Your task to perform on an android device: Add panasonic triple a to the cart on target, then select checkout. Image 0: 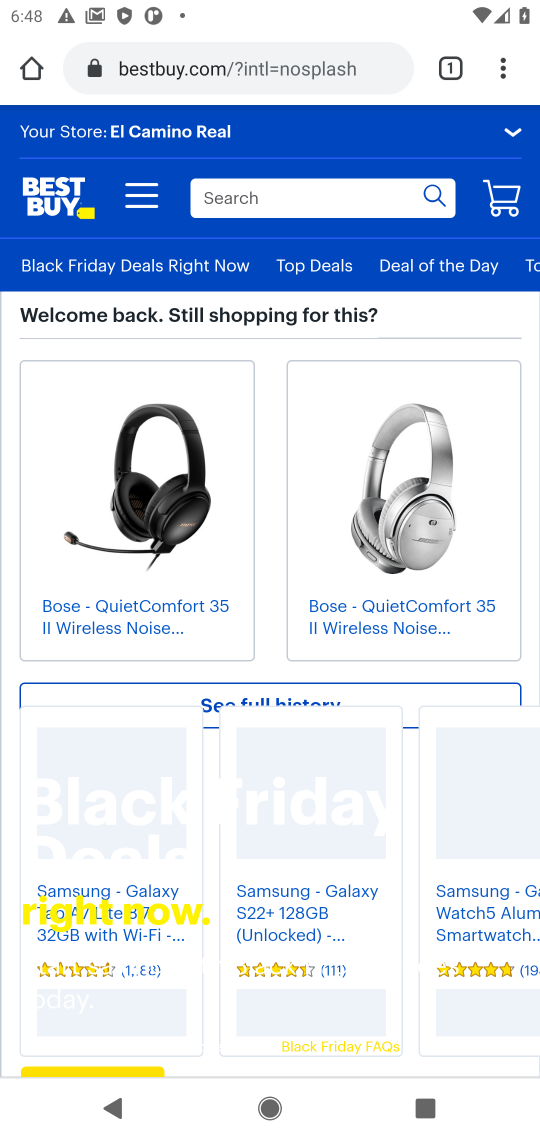
Step 0: press home button
Your task to perform on an android device: Add panasonic triple a to the cart on target, then select checkout. Image 1: 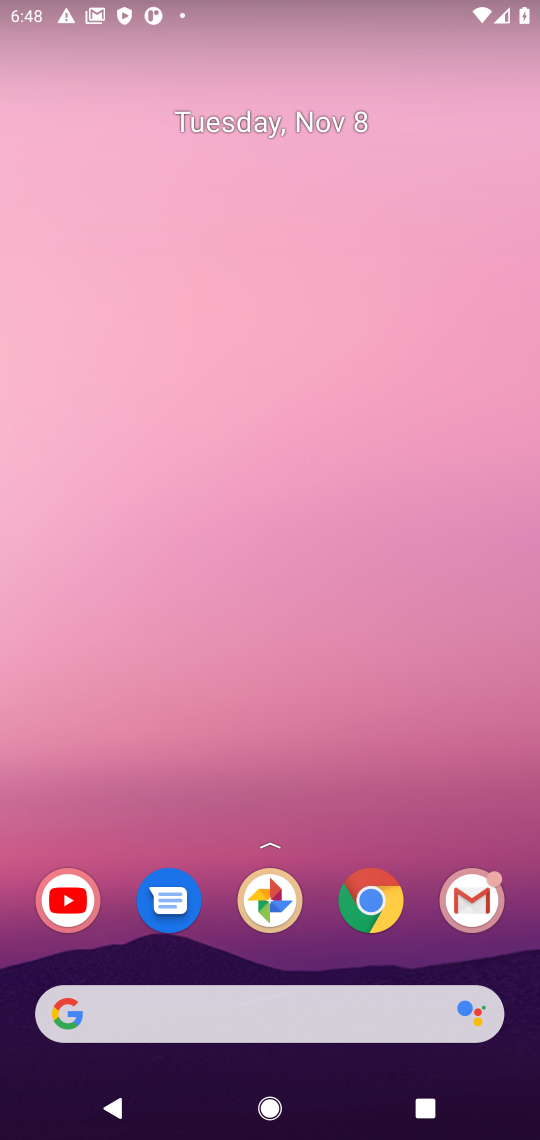
Step 1: click (381, 909)
Your task to perform on an android device: Add panasonic triple a to the cart on target, then select checkout. Image 2: 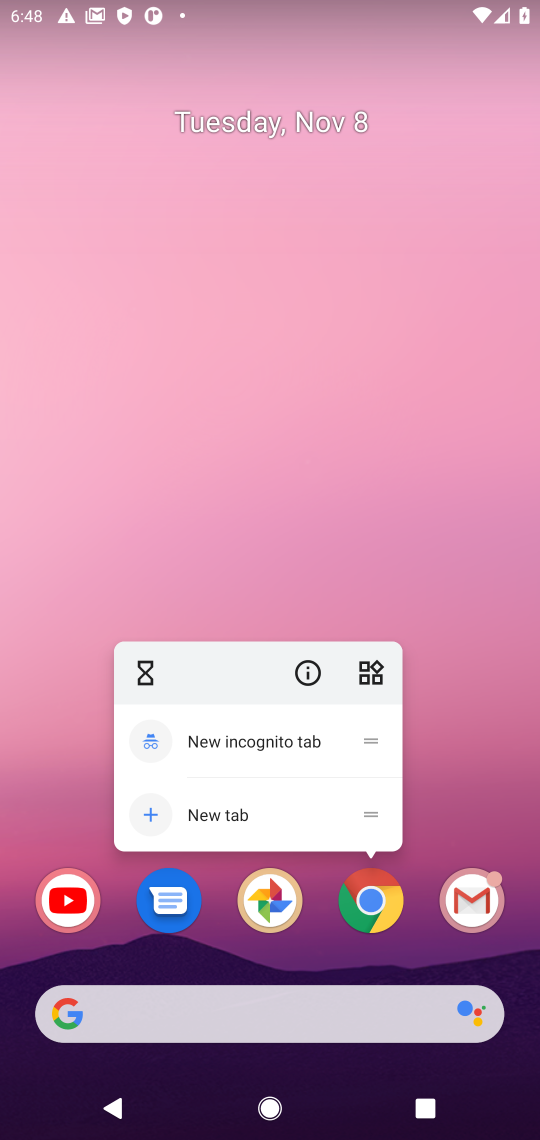
Step 2: click (378, 906)
Your task to perform on an android device: Add panasonic triple a to the cart on target, then select checkout. Image 3: 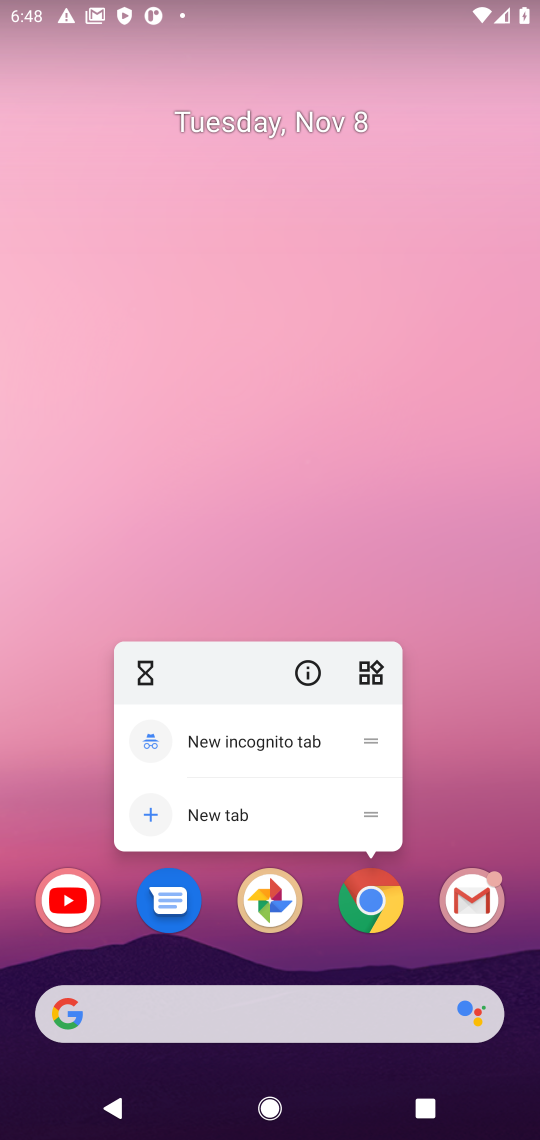
Step 3: click (363, 908)
Your task to perform on an android device: Add panasonic triple a to the cart on target, then select checkout. Image 4: 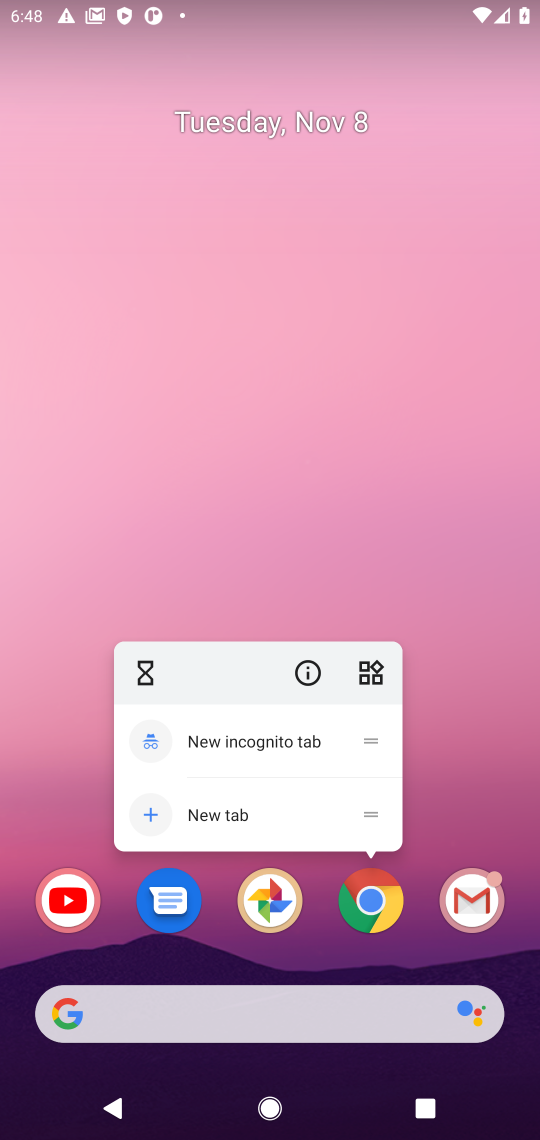
Step 4: click (371, 910)
Your task to perform on an android device: Add panasonic triple a to the cart on target, then select checkout. Image 5: 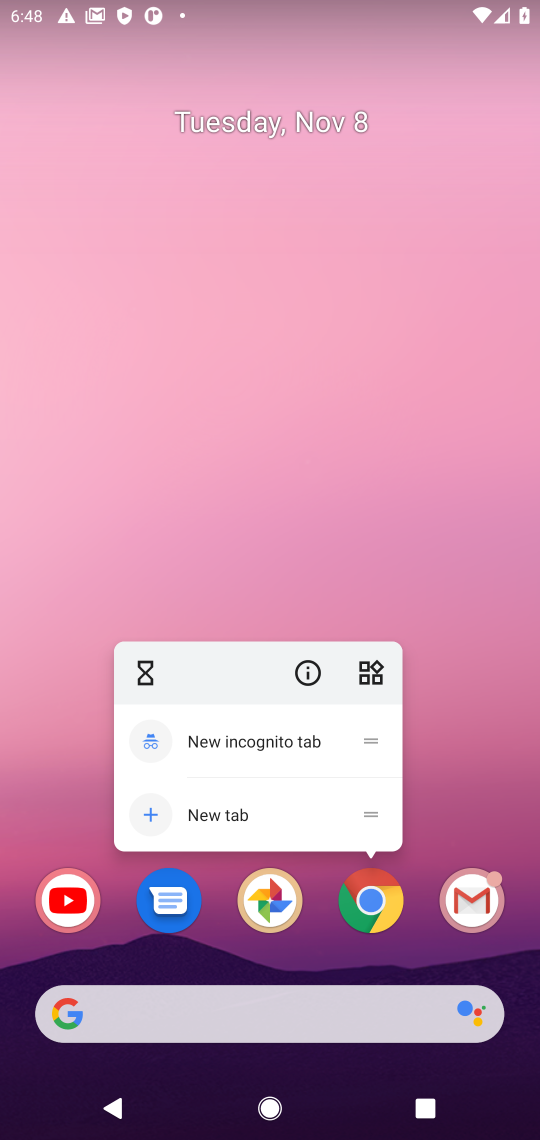
Step 5: click (382, 907)
Your task to perform on an android device: Add panasonic triple a to the cart on target, then select checkout. Image 6: 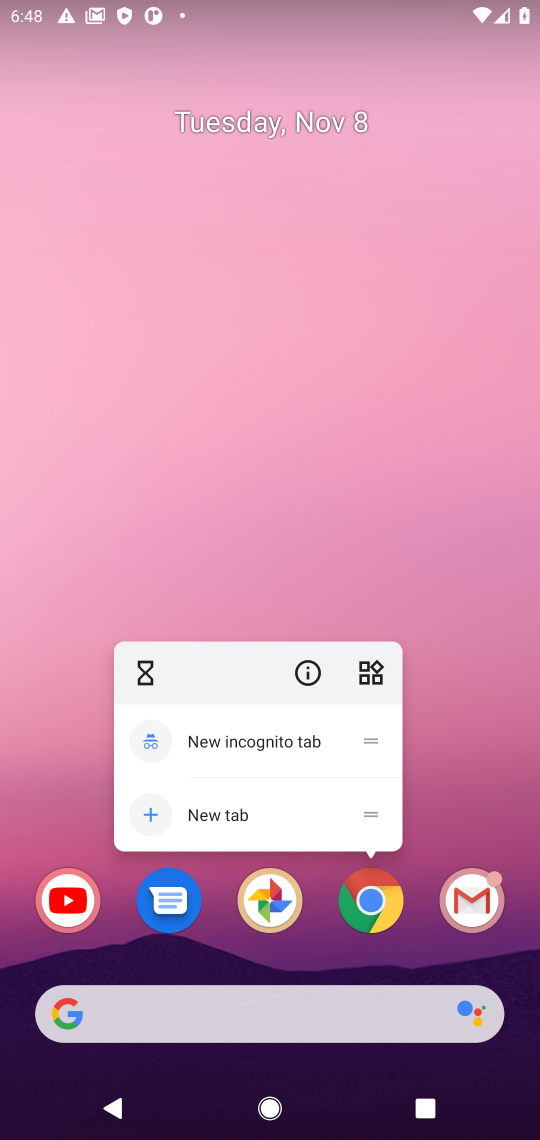
Step 6: click (365, 908)
Your task to perform on an android device: Add panasonic triple a to the cart on target, then select checkout. Image 7: 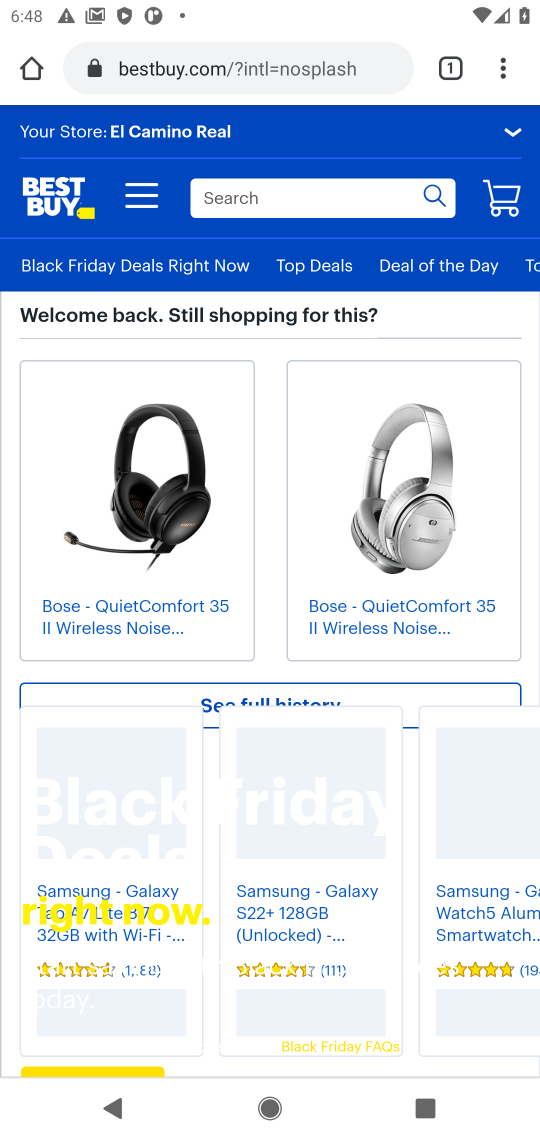
Step 7: click (173, 72)
Your task to perform on an android device: Add panasonic triple a to the cart on target, then select checkout. Image 8: 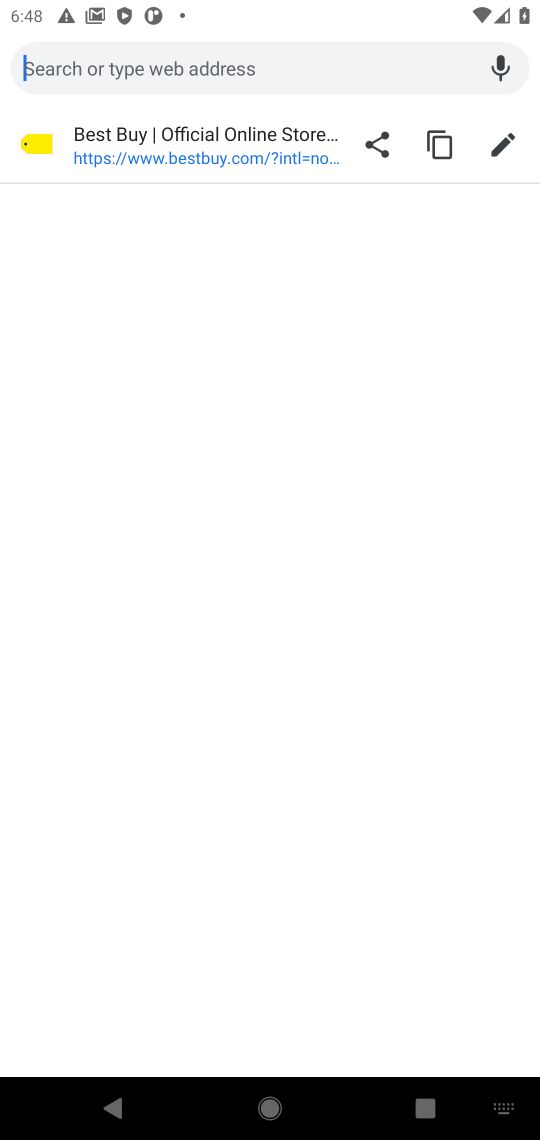
Step 8: type "target"
Your task to perform on an android device: Add panasonic triple a to the cart on target, then select checkout. Image 9: 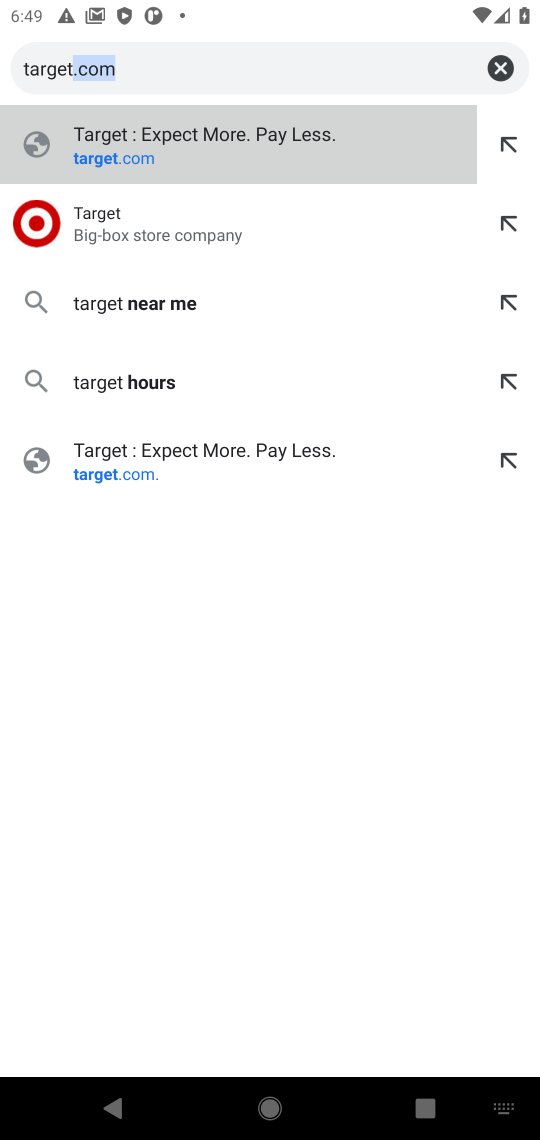
Step 9: click (92, 222)
Your task to perform on an android device: Add panasonic triple a to the cart on target, then select checkout. Image 10: 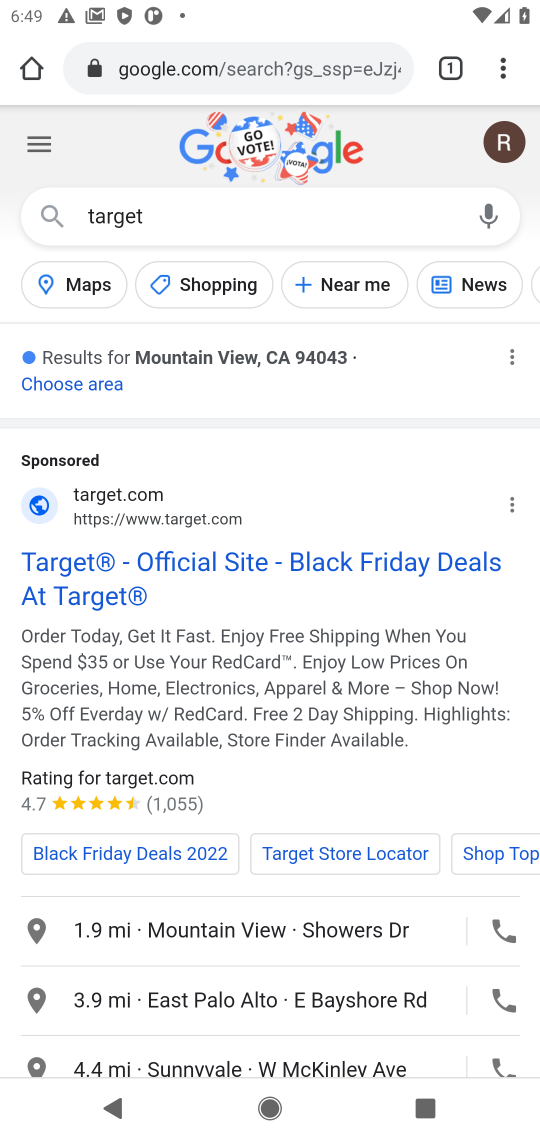
Step 10: drag from (108, 725) to (180, 75)
Your task to perform on an android device: Add panasonic triple a to the cart on target, then select checkout. Image 11: 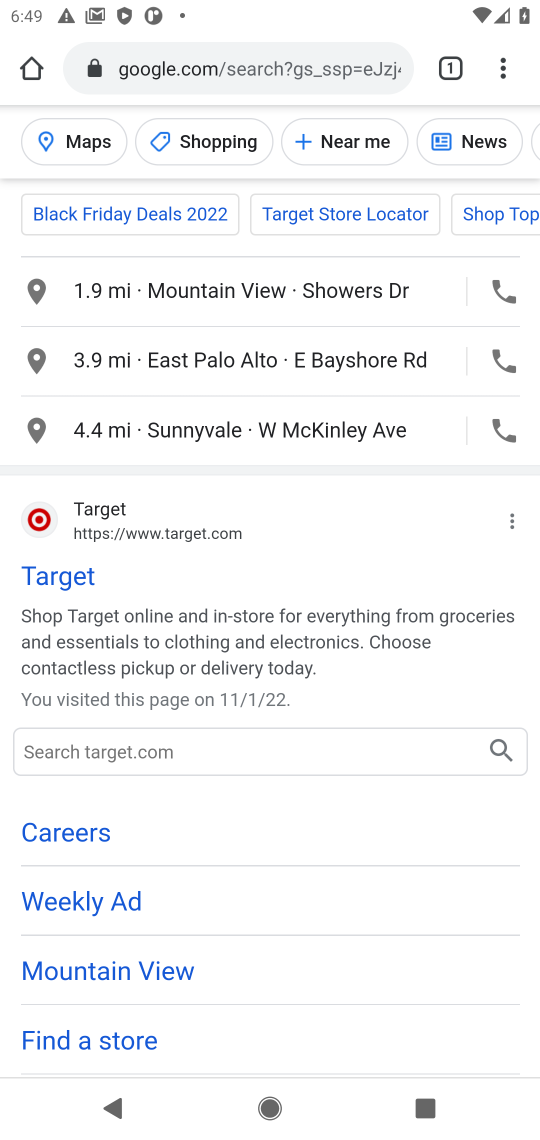
Step 11: click (80, 579)
Your task to perform on an android device: Add panasonic triple a to the cart on target, then select checkout. Image 12: 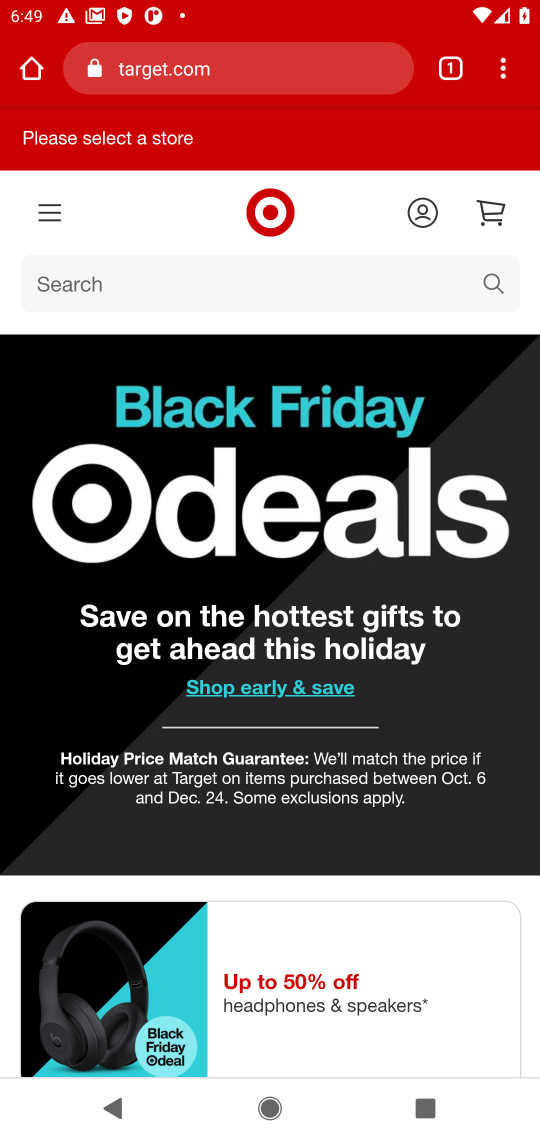
Step 12: click (189, 278)
Your task to perform on an android device: Add panasonic triple a to the cart on target, then select checkout. Image 13: 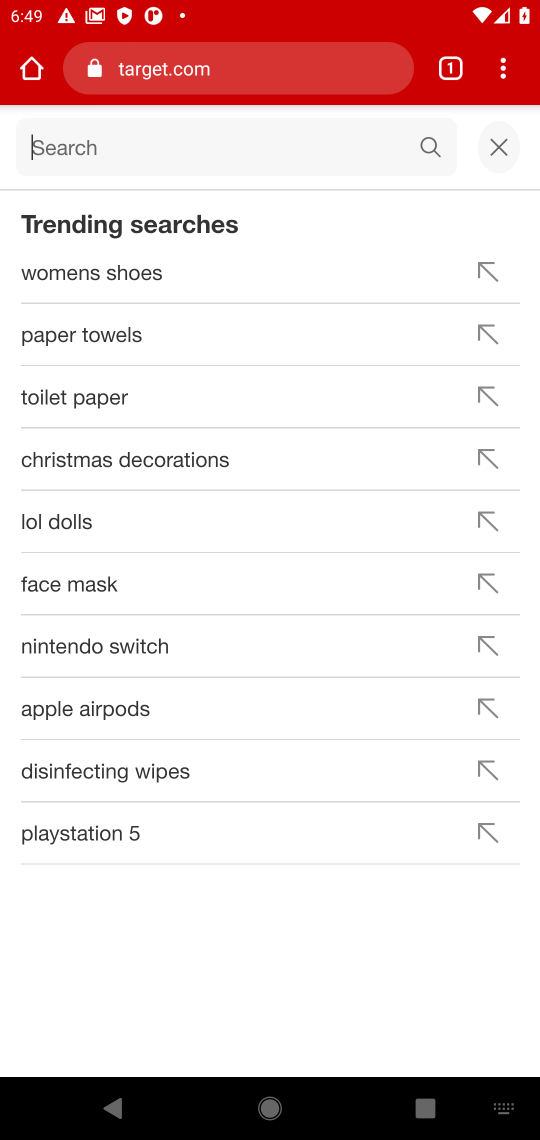
Step 13: type "panasonic triple"
Your task to perform on an android device: Add panasonic triple a to the cart on target, then select checkout. Image 14: 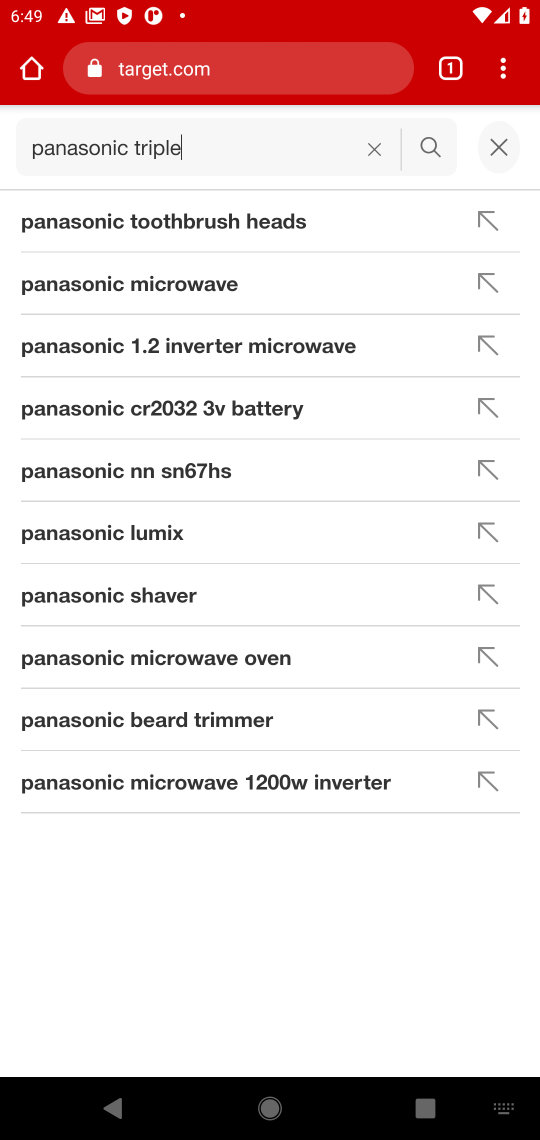
Step 14: click (84, 525)
Your task to perform on an android device: Add panasonic triple a to the cart on target, then select checkout. Image 15: 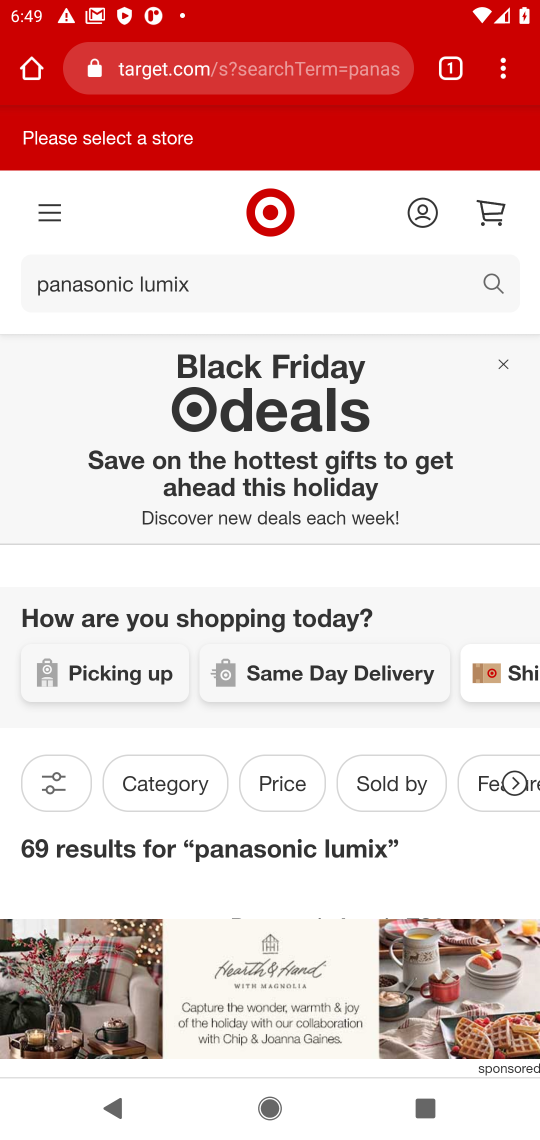
Step 15: drag from (130, 936) to (190, 168)
Your task to perform on an android device: Add panasonic triple a to the cart on target, then select checkout. Image 16: 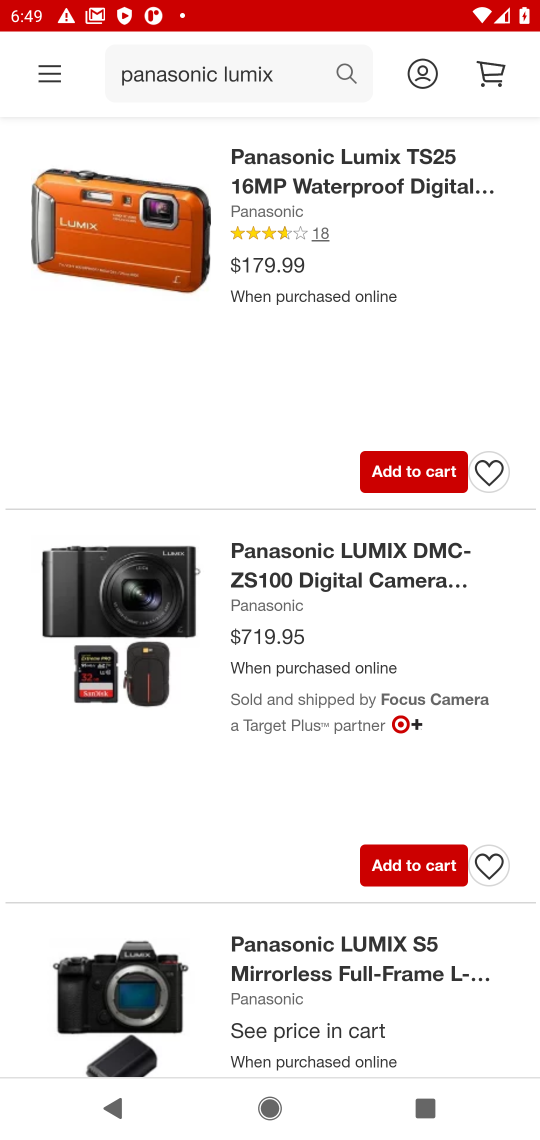
Step 16: click (134, 635)
Your task to perform on an android device: Add panasonic triple a to the cart on target, then select checkout. Image 17: 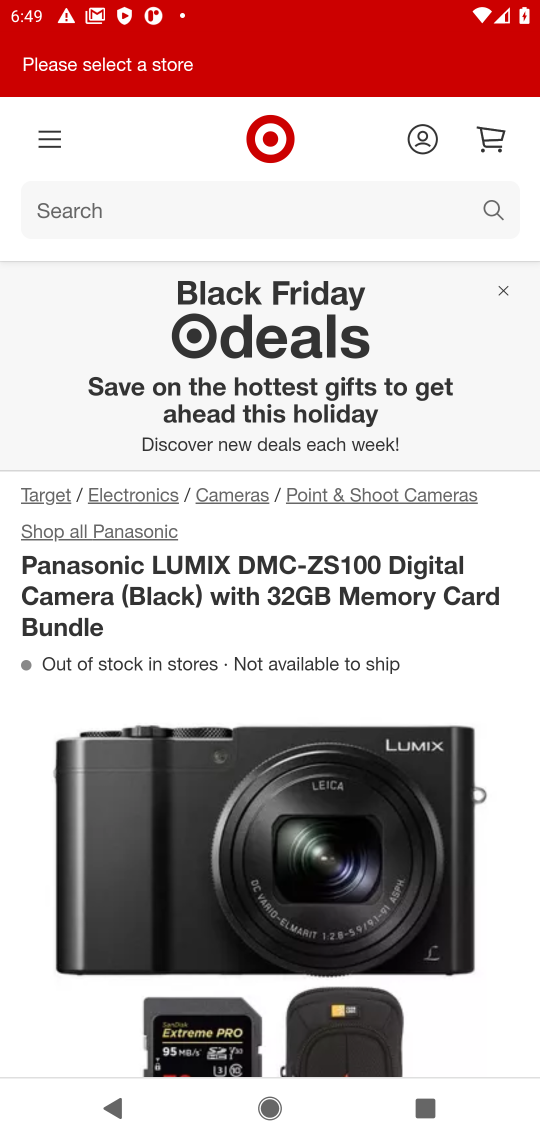
Step 17: drag from (271, 828) to (325, 222)
Your task to perform on an android device: Add panasonic triple a to the cart on target, then select checkout. Image 18: 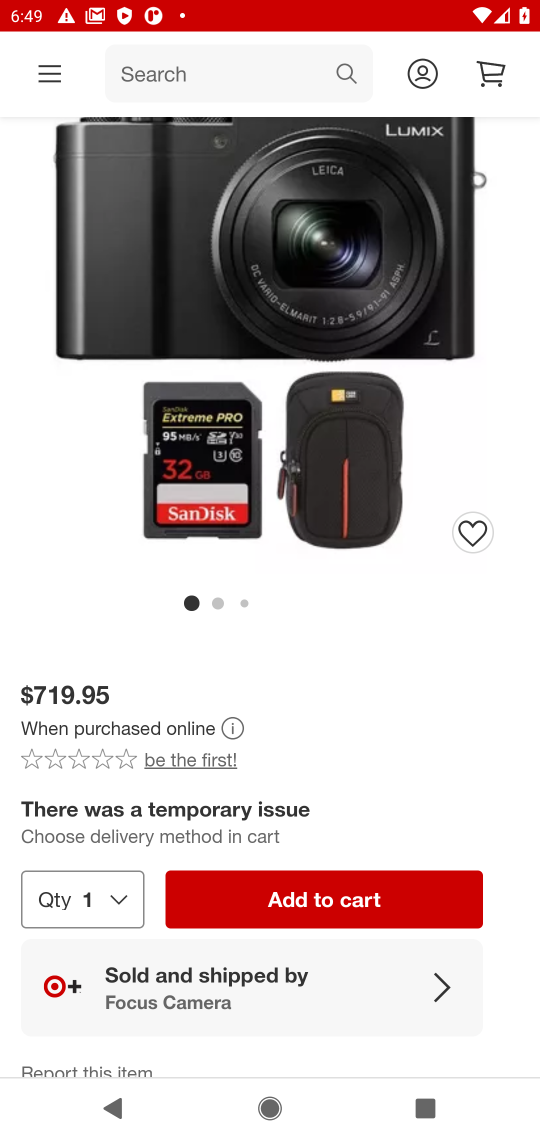
Step 18: drag from (496, 791) to (534, 532)
Your task to perform on an android device: Add panasonic triple a to the cart on target, then select checkout. Image 19: 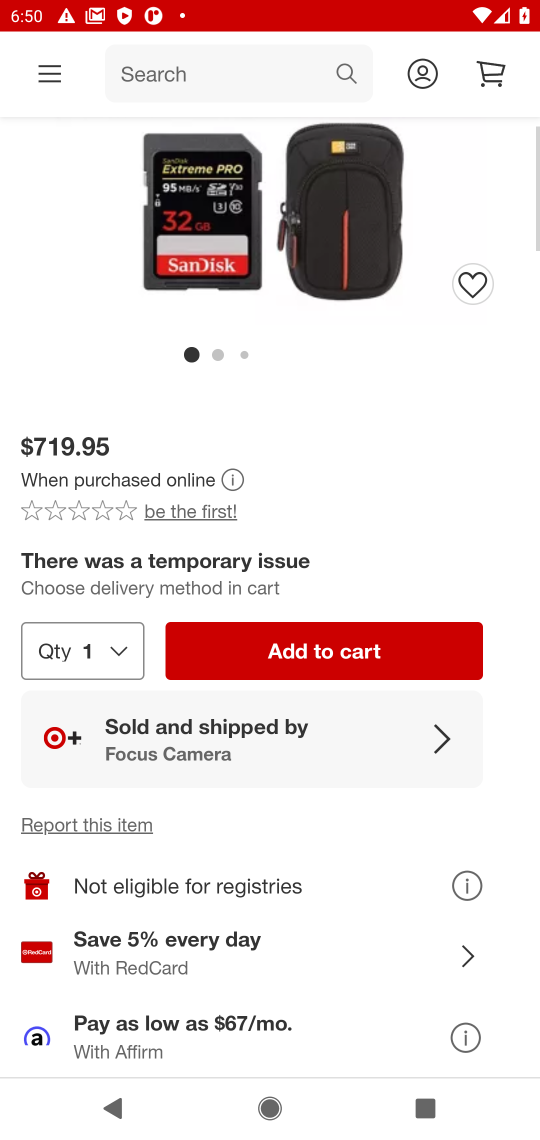
Step 19: click (298, 706)
Your task to perform on an android device: Add panasonic triple a to the cart on target, then select checkout. Image 20: 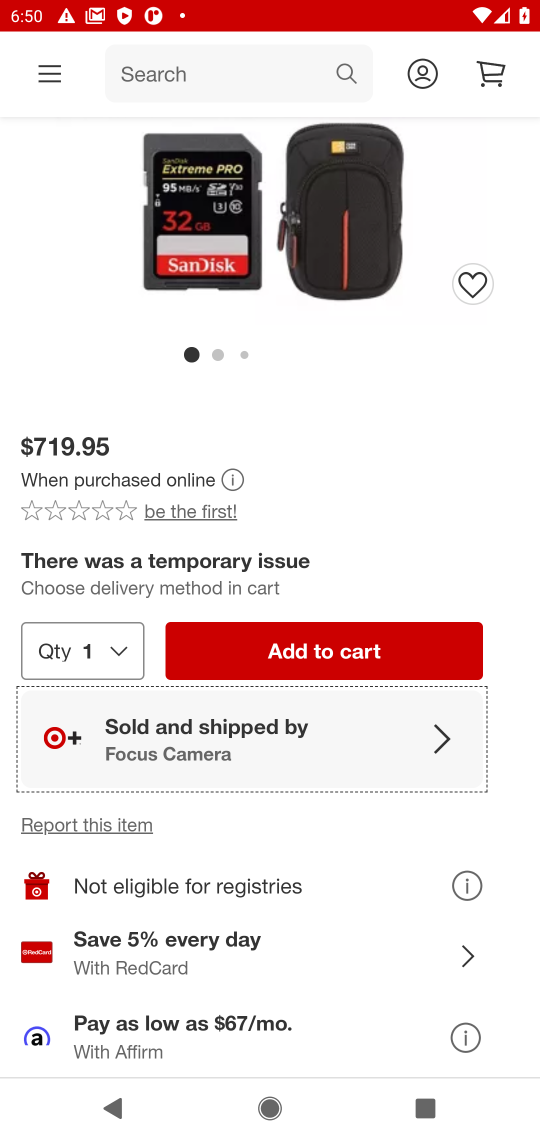
Step 20: click (298, 663)
Your task to perform on an android device: Add panasonic triple a to the cart on target, then select checkout. Image 21: 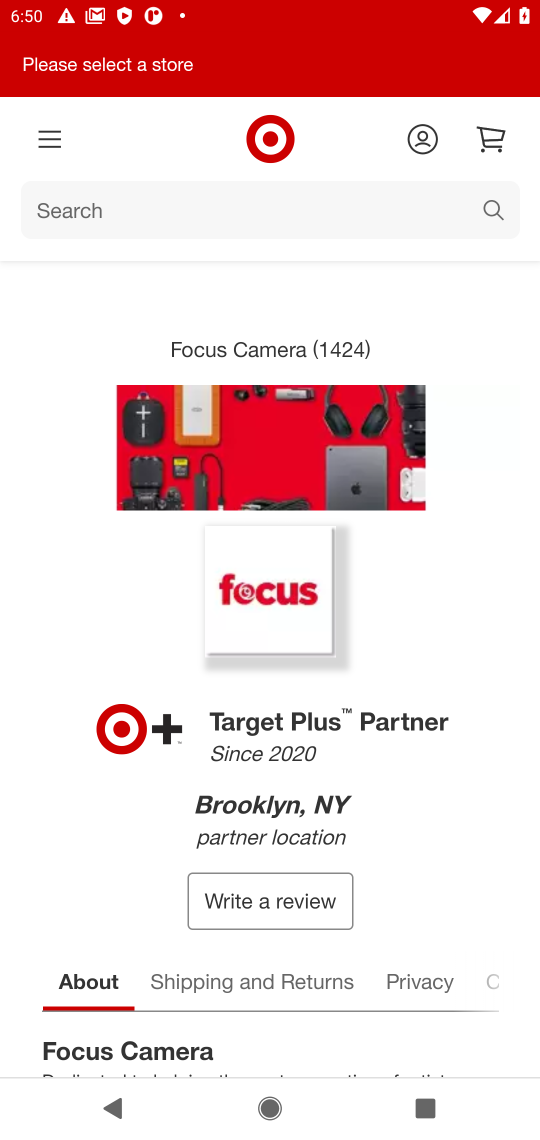
Step 21: drag from (376, 895) to (399, 477)
Your task to perform on an android device: Add panasonic triple a to the cart on target, then select checkout. Image 22: 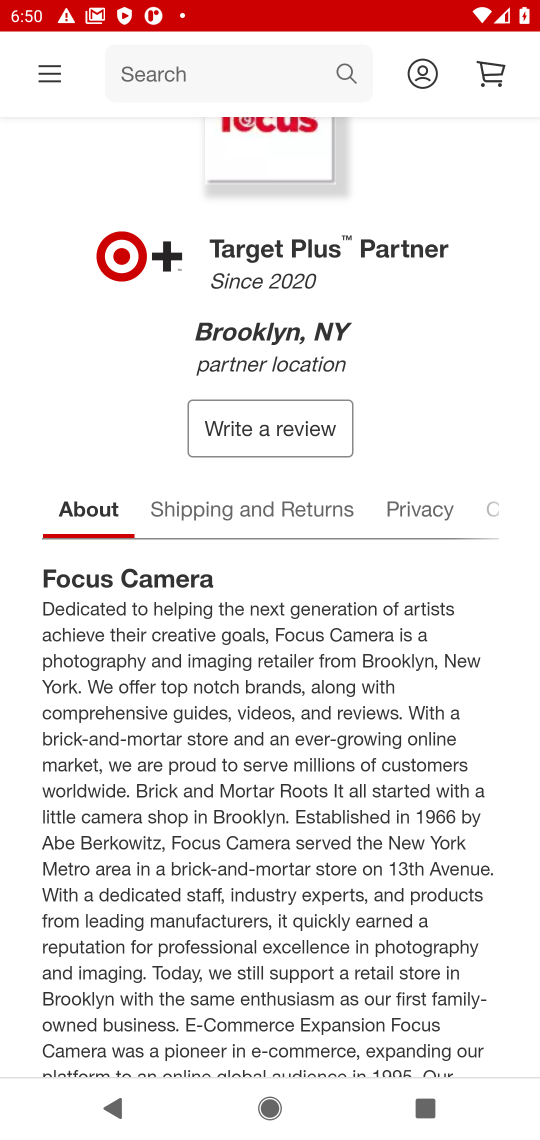
Step 22: drag from (319, 869) to (331, 189)
Your task to perform on an android device: Add panasonic triple a to the cart on target, then select checkout. Image 23: 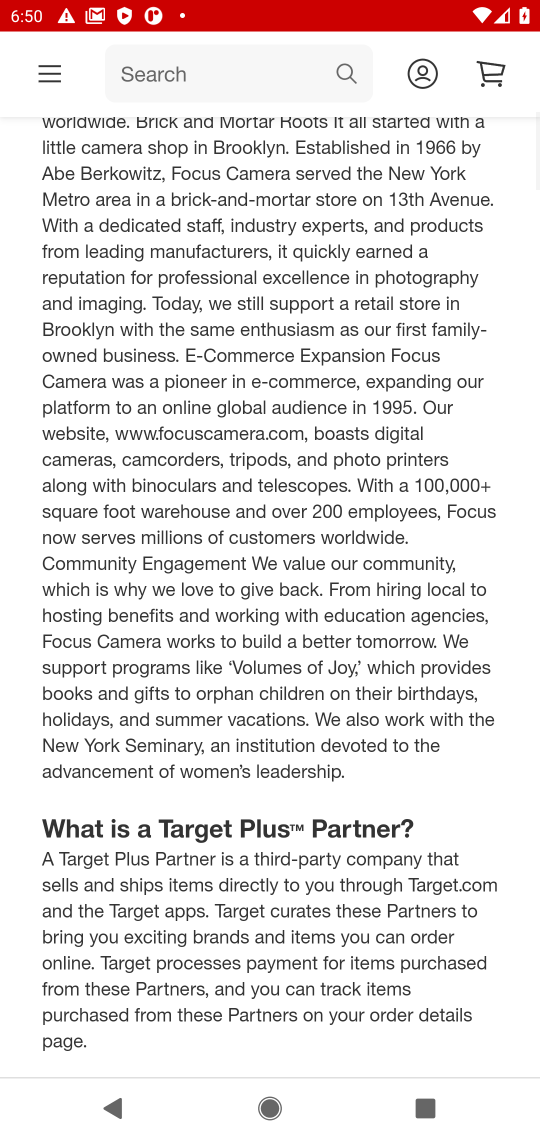
Step 23: drag from (243, 857) to (252, 299)
Your task to perform on an android device: Add panasonic triple a to the cart on target, then select checkout. Image 24: 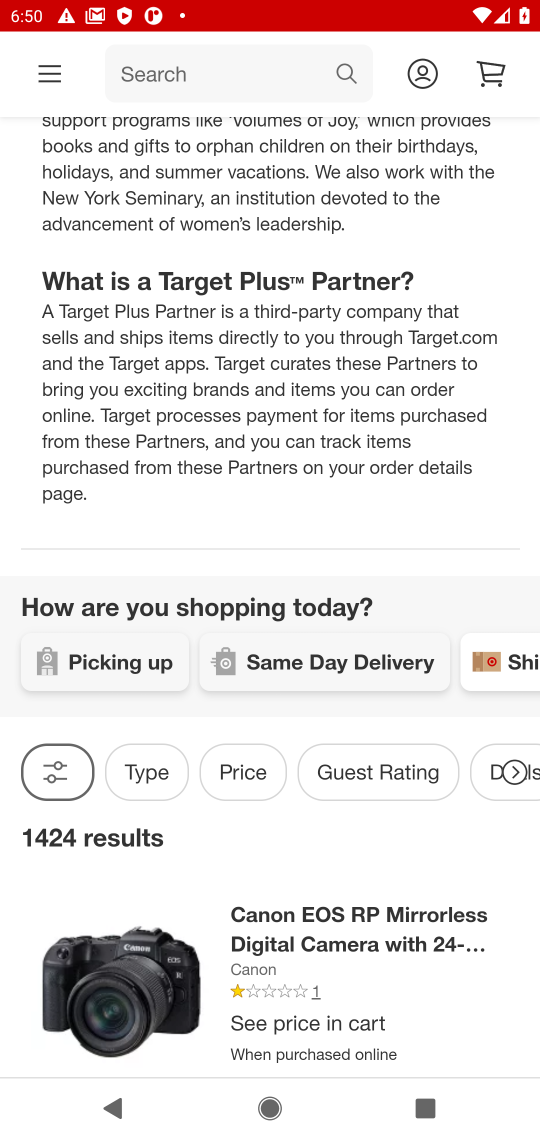
Step 24: drag from (176, 935) to (427, 436)
Your task to perform on an android device: Add panasonic triple a to the cart on target, then select checkout. Image 25: 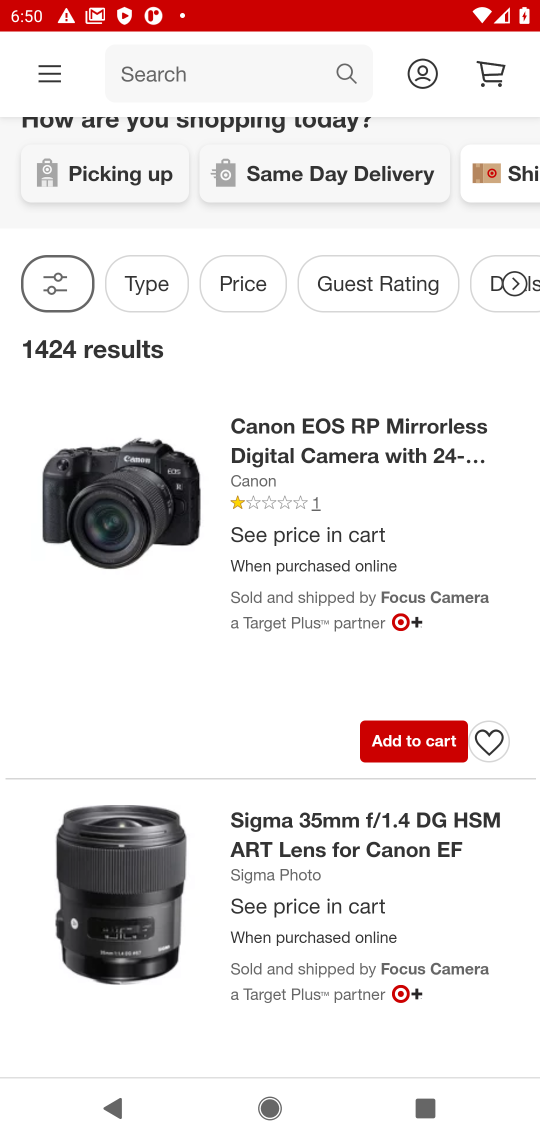
Step 25: press back button
Your task to perform on an android device: Add panasonic triple a to the cart on target, then select checkout. Image 26: 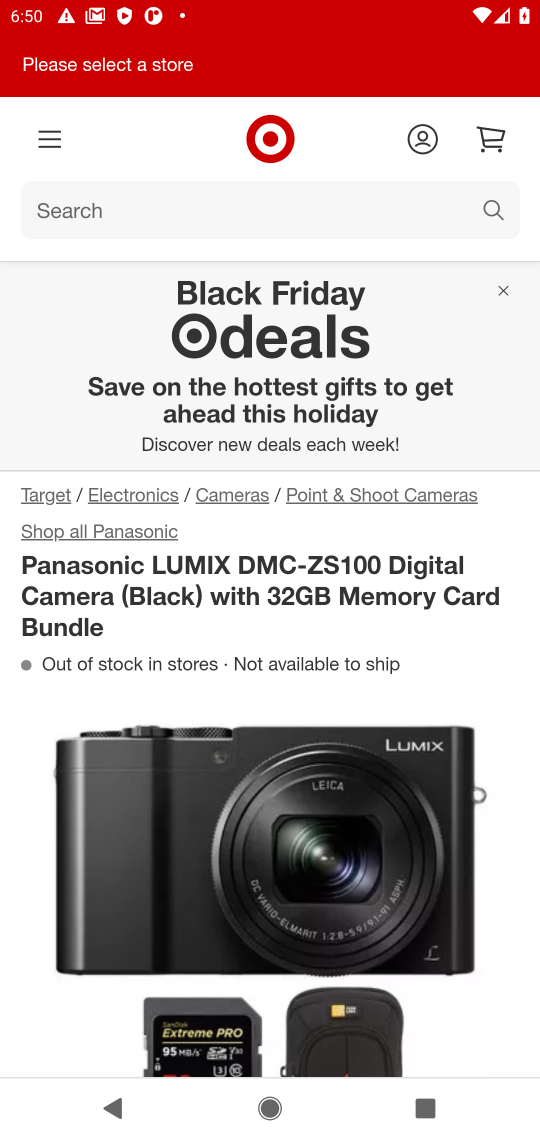
Step 26: click (503, 211)
Your task to perform on an android device: Add panasonic triple a to the cart on target, then select checkout. Image 27: 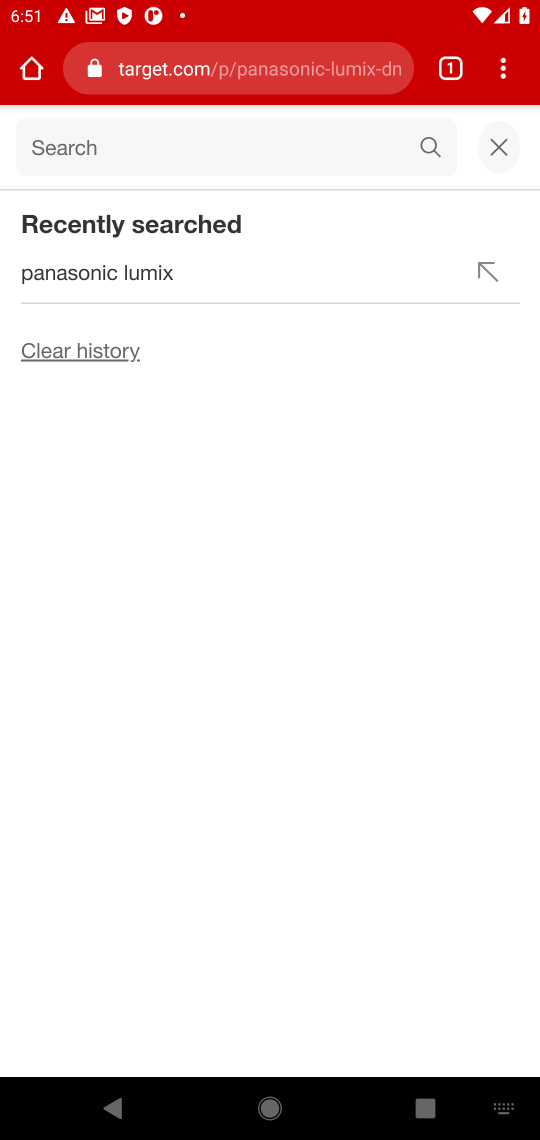
Step 27: type "panasonic triple"
Your task to perform on an android device: Add panasonic triple a to the cart on target, then select checkout. Image 28: 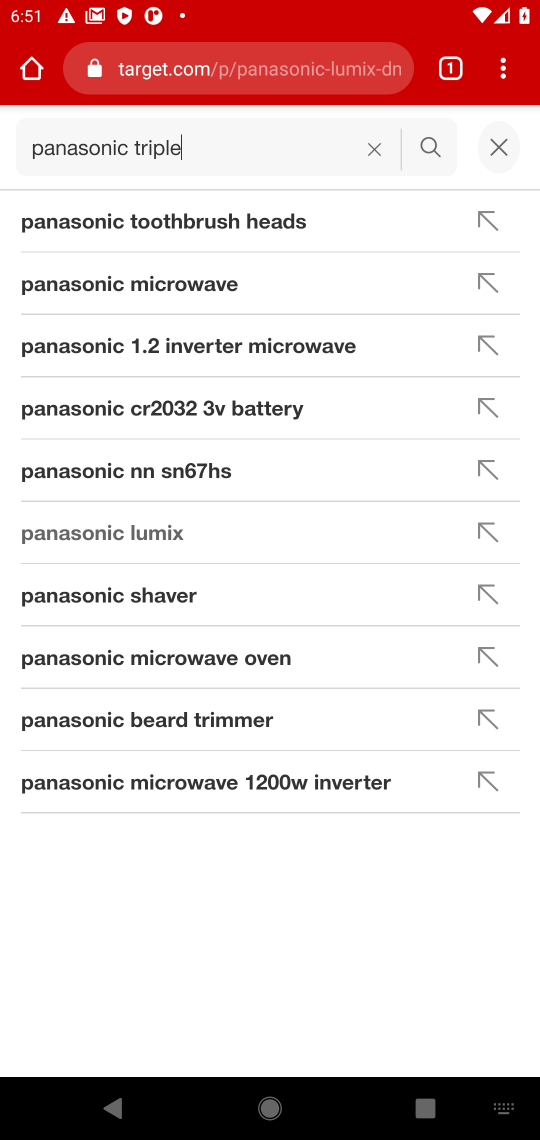
Step 28: click (143, 406)
Your task to perform on an android device: Add panasonic triple a to the cart on target, then select checkout. Image 29: 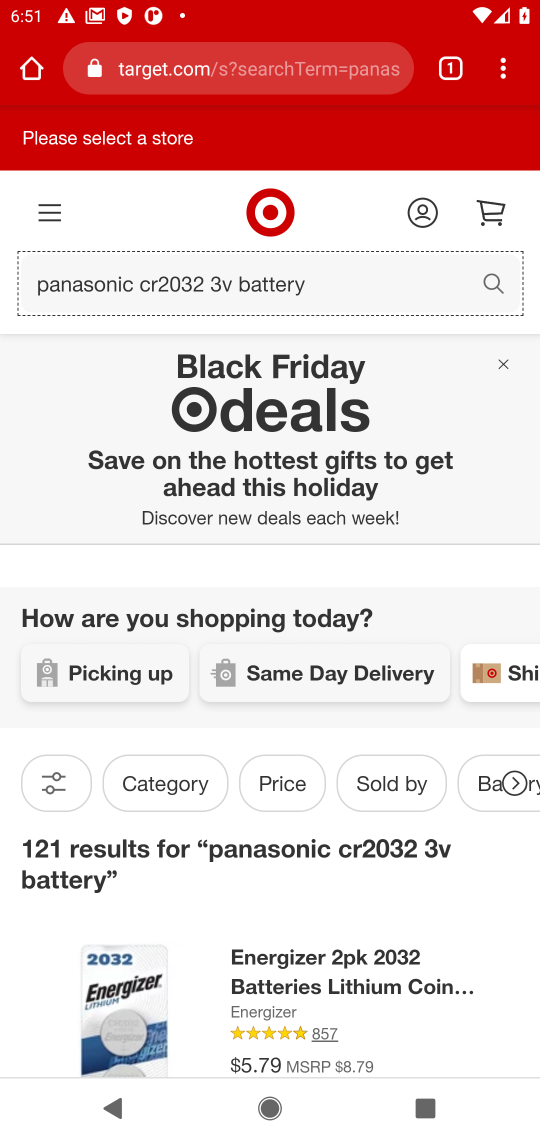
Step 29: drag from (289, 1000) to (320, 97)
Your task to perform on an android device: Add panasonic triple a to the cart on target, then select checkout. Image 30: 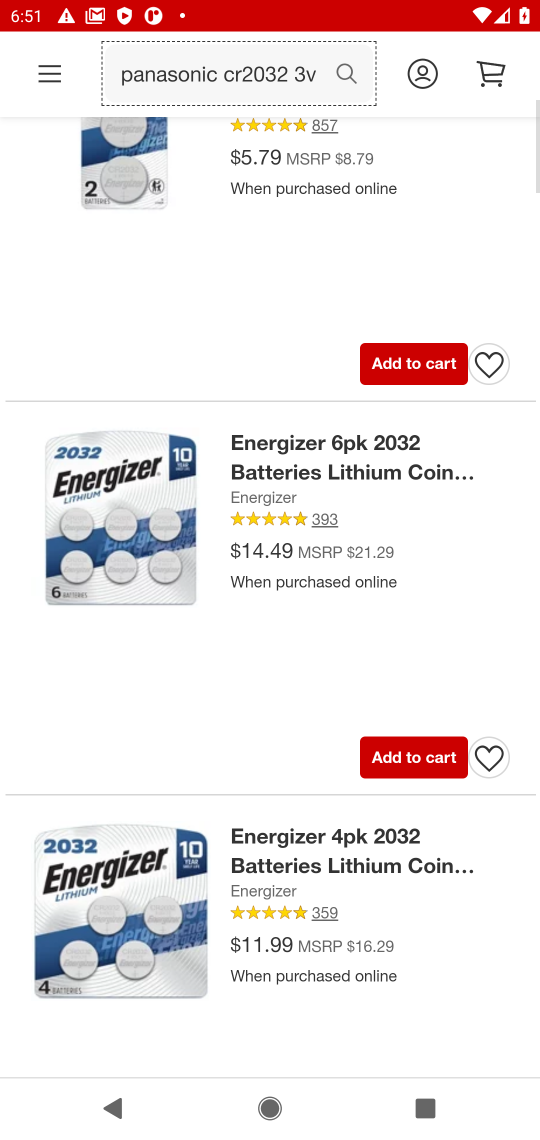
Step 30: drag from (313, 1041) to (218, 274)
Your task to perform on an android device: Add panasonic triple a to the cart on target, then select checkout. Image 31: 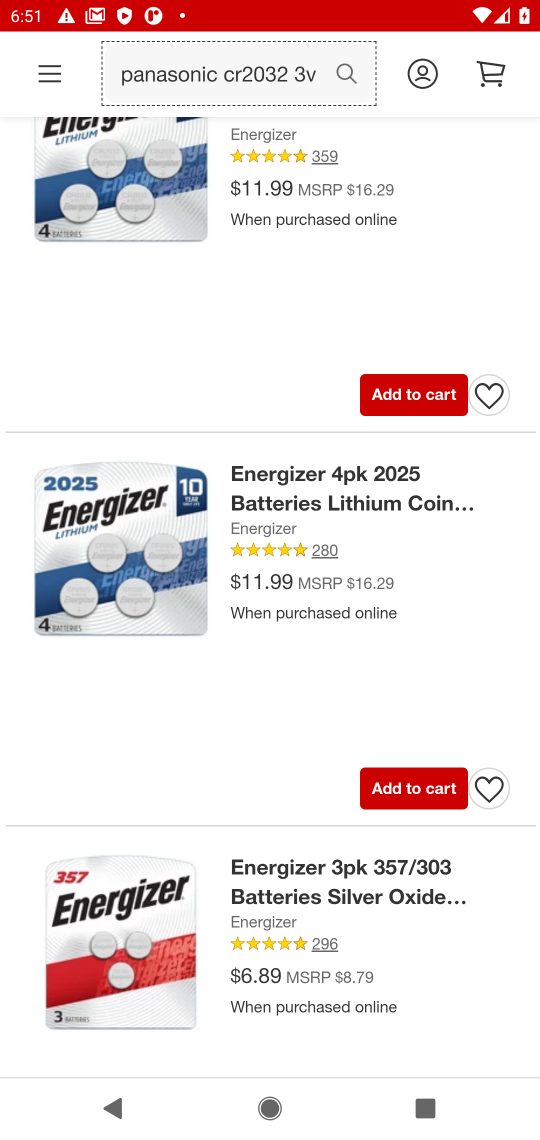
Step 31: click (275, 896)
Your task to perform on an android device: Add panasonic triple a to the cart on target, then select checkout. Image 32: 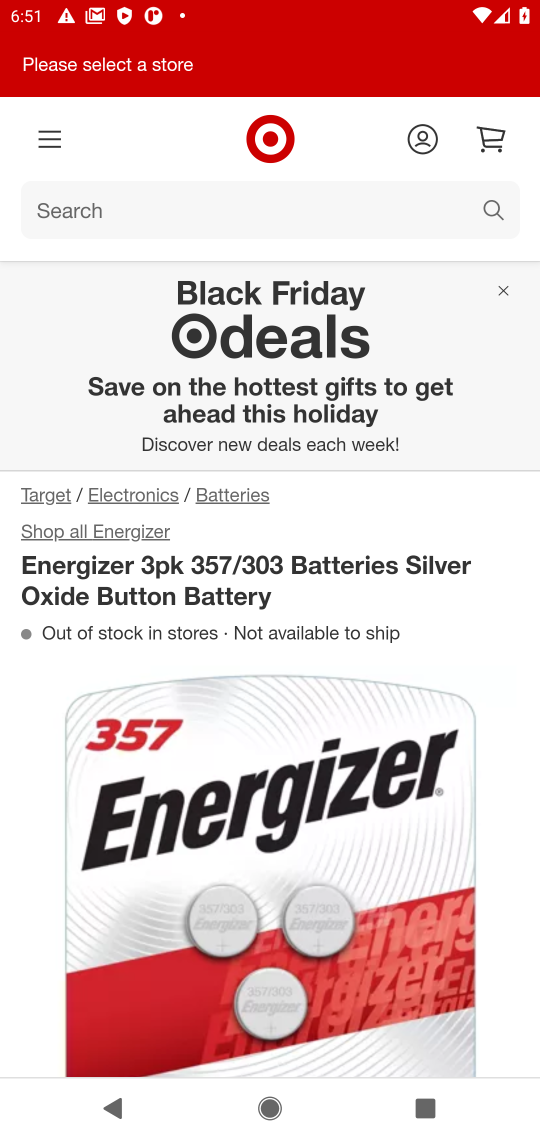
Step 32: drag from (361, 904) to (469, 254)
Your task to perform on an android device: Add panasonic triple a to the cart on target, then select checkout. Image 33: 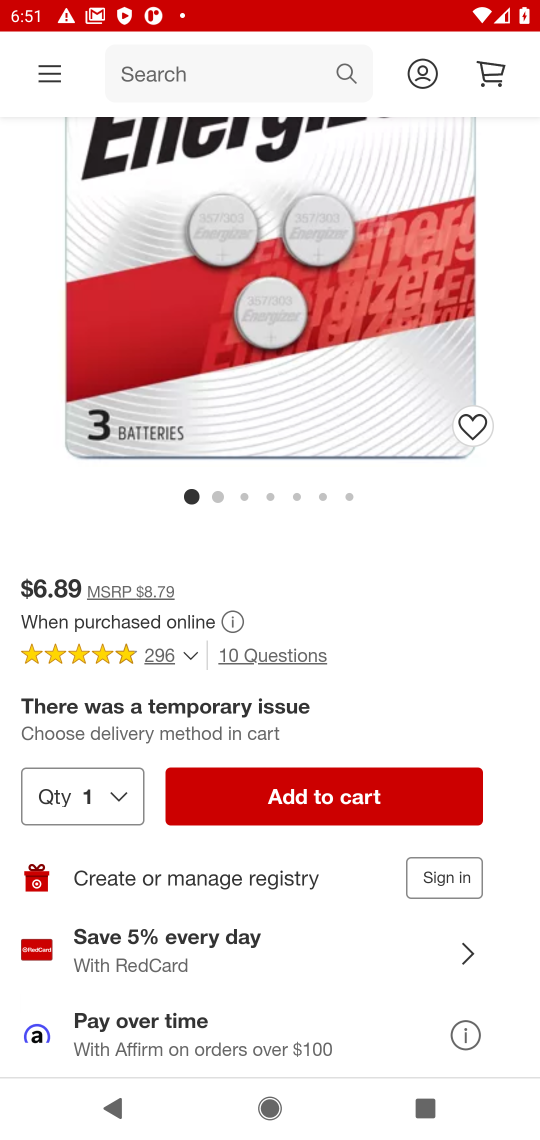
Step 33: click (338, 815)
Your task to perform on an android device: Add panasonic triple a to the cart on target, then select checkout. Image 34: 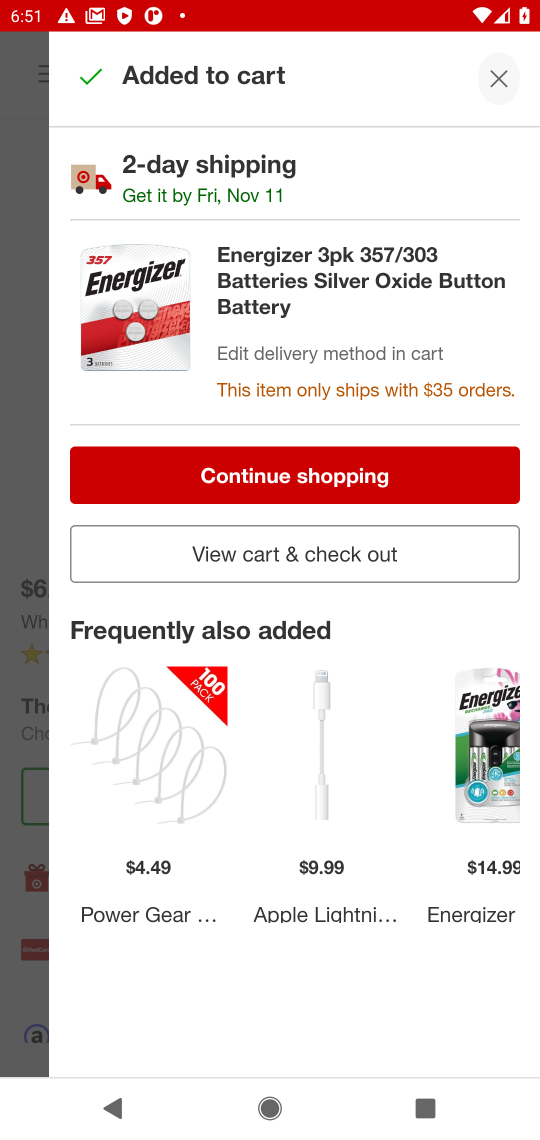
Step 34: click (257, 560)
Your task to perform on an android device: Add panasonic triple a to the cart on target, then select checkout. Image 35: 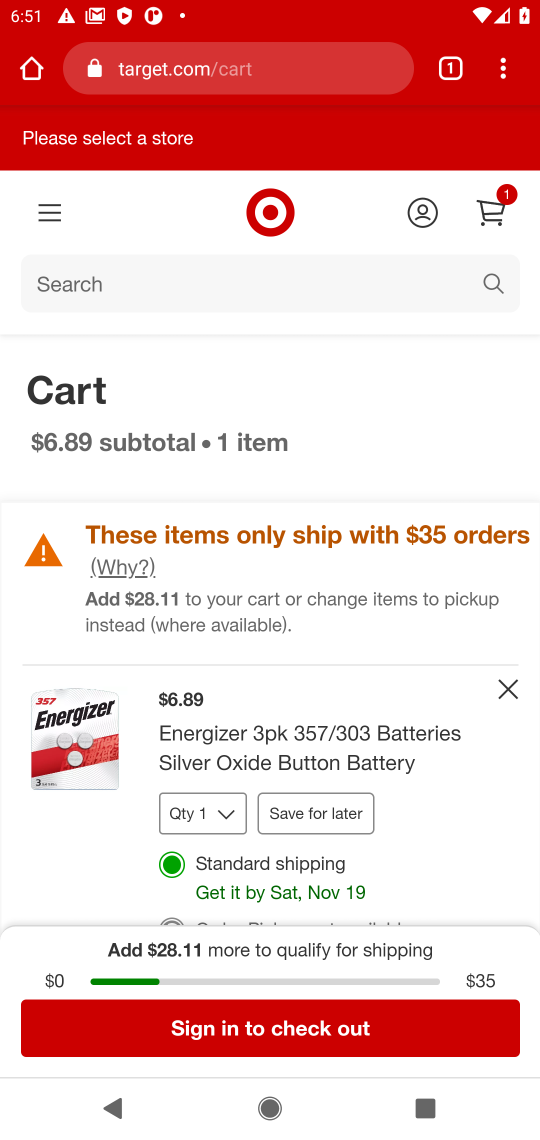
Step 35: drag from (299, 877) to (290, 350)
Your task to perform on an android device: Add panasonic triple a to the cart on target, then select checkout. Image 36: 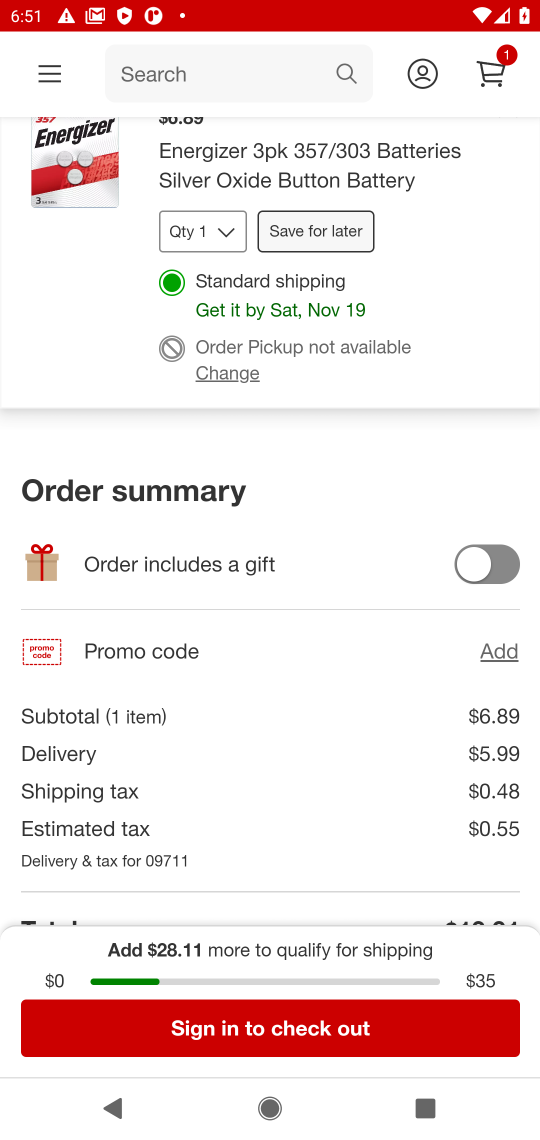
Step 36: click (332, 1027)
Your task to perform on an android device: Add panasonic triple a to the cart on target, then select checkout. Image 37: 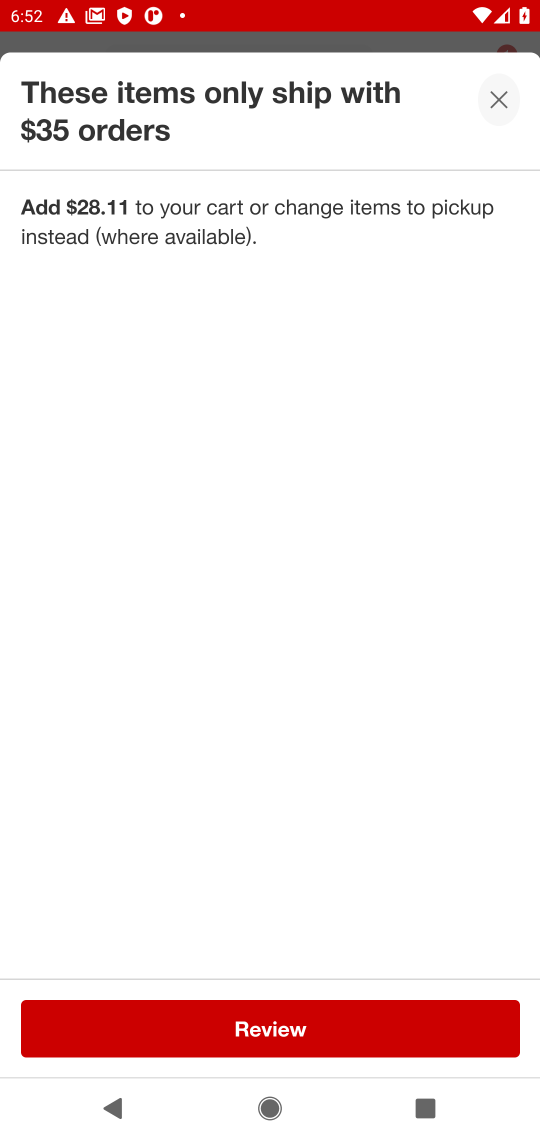
Step 37: task complete